Your task to perform on an android device: search for starred emails in the gmail app Image 0: 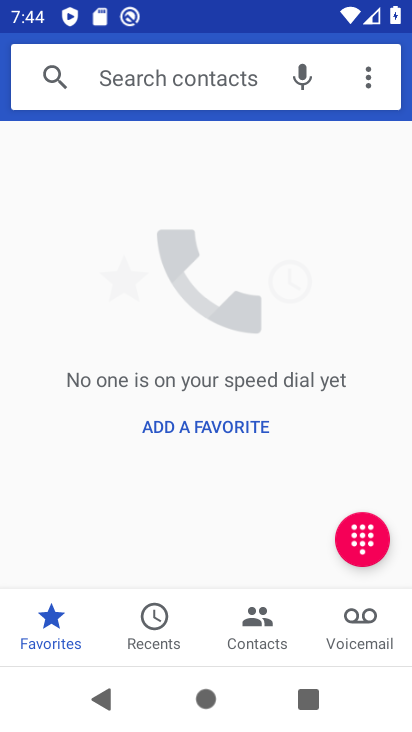
Step 0: press home button
Your task to perform on an android device: search for starred emails in the gmail app Image 1: 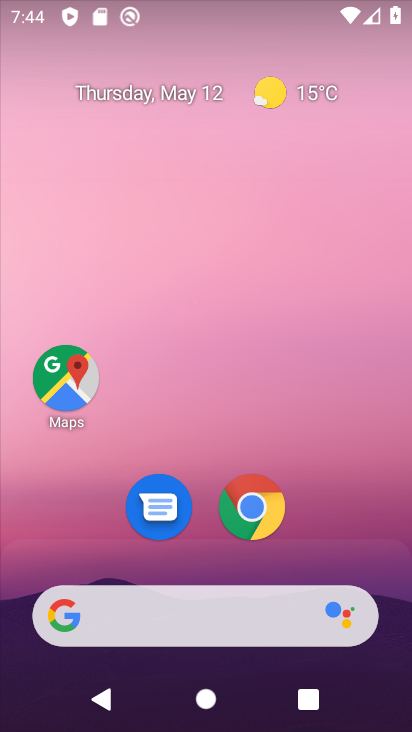
Step 1: drag from (205, 491) to (330, 23)
Your task to perform on an android device: search for starred emails in the gmail app Image 2: 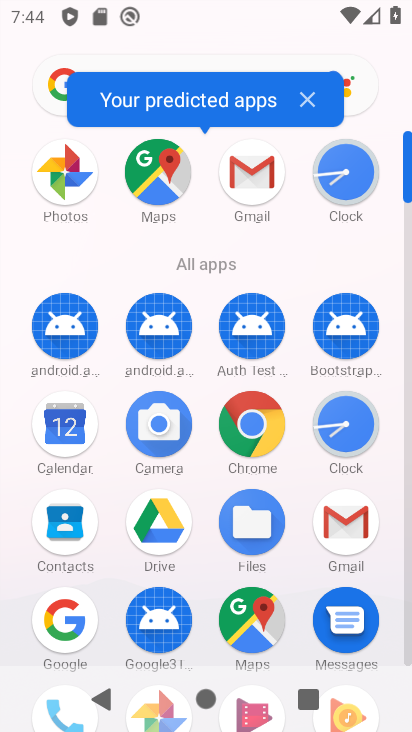
Step 2: click (260, 173)
Your task to perform on an android device: search for starred emails in the gmail app Image 3: 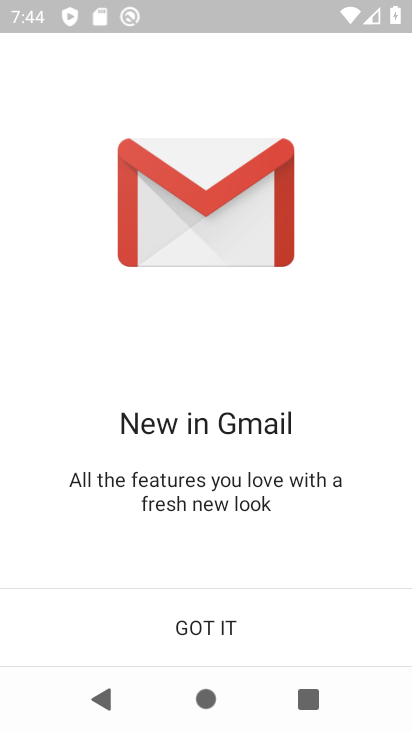
Step 3: click (182, 654)
Your task to perform on an android device: search for starred emails in the gmail app Image 4: 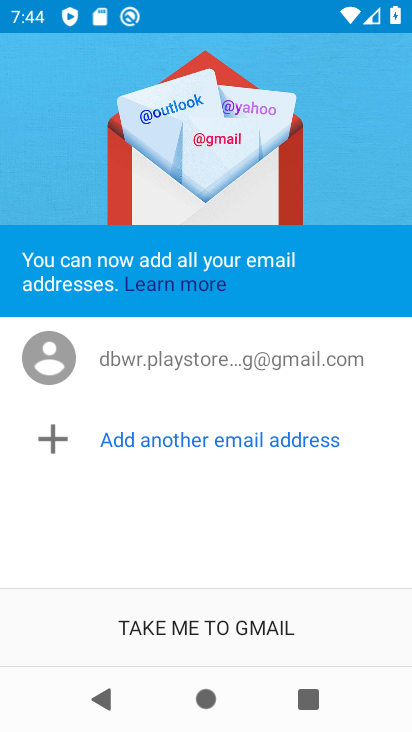
Step 4: click (156, 626)
Your task to perform on an android device: search for starred emails in the gmail app Image 5: 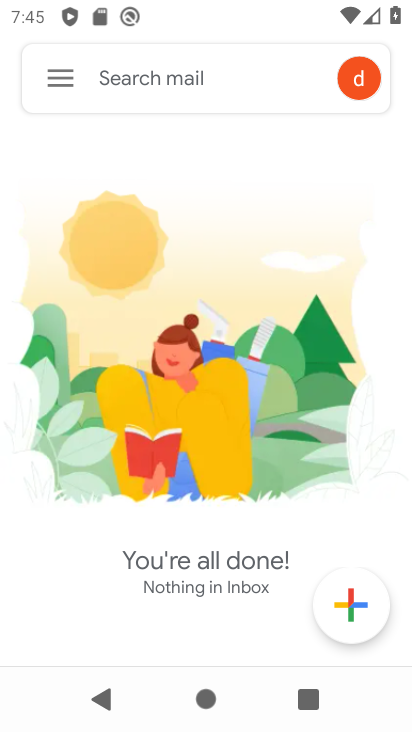
Step 5: click (70, 79)
Your task to perform on an android device: search for starred emails in the gmail app Image 6: 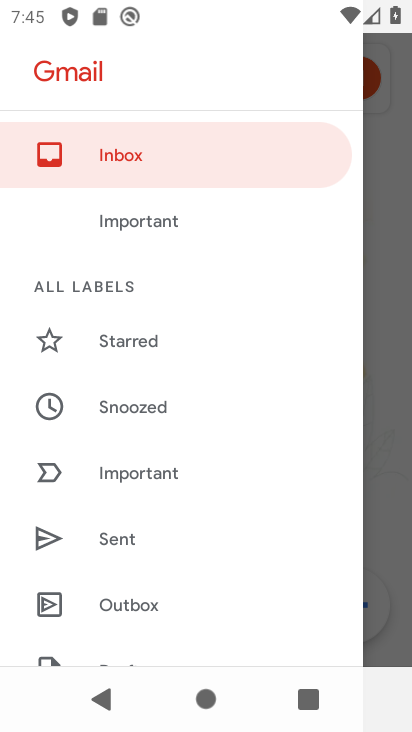
Step 6: click (138, 347)
Your task to perform on an android device: search for starred emails in the gmail app Image 7: 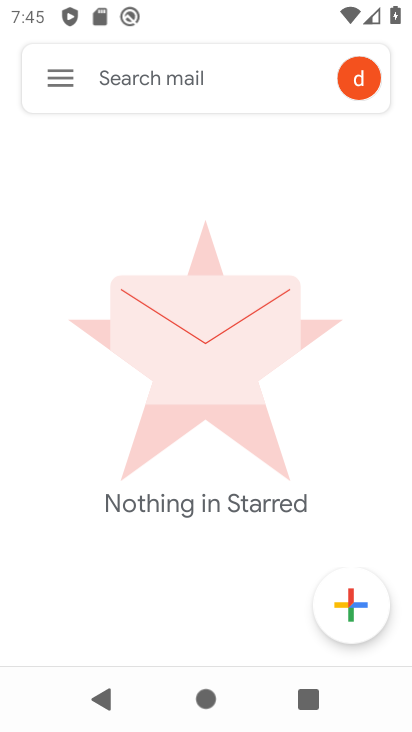
Step 7: task complete